Your task to perform on an android device: Open Amazon Image 0: 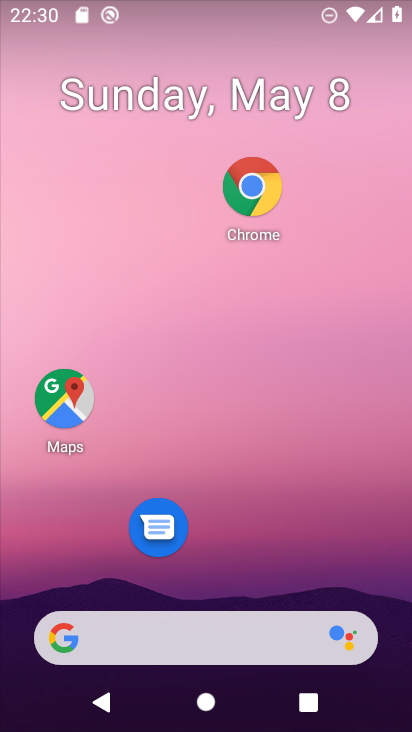
Step 0: drag from (263, 502) to (285, 243)
Your task to perform on an android device: Open Amazon Image 1: 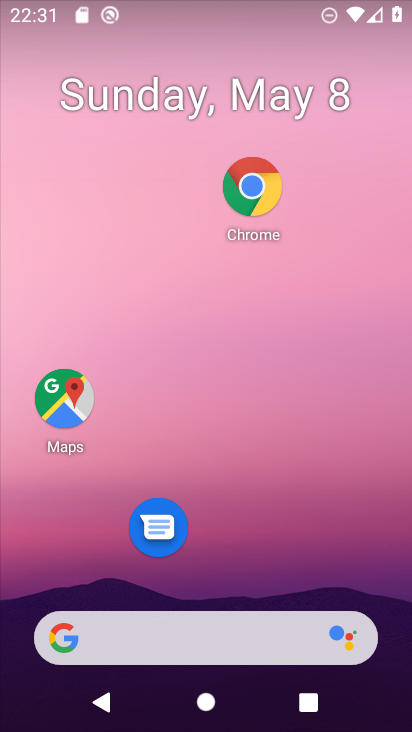
Step 1: click (248, 186)
Your task to perform on an android device: Open Amazon Image 2: 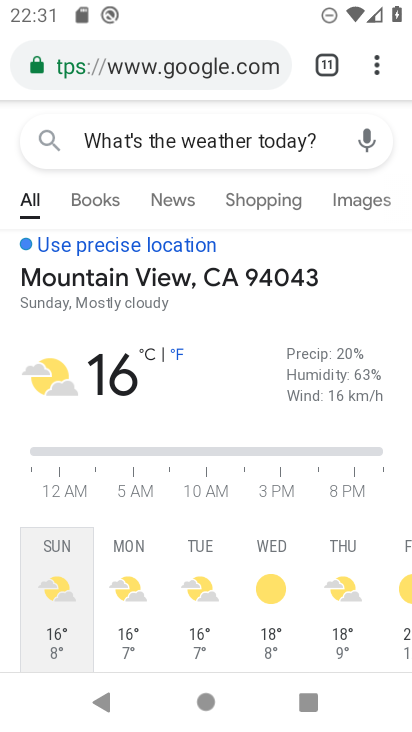
Step 2: click (364, 57)
Your task to perform on an android device: Open Amazon Image 3: 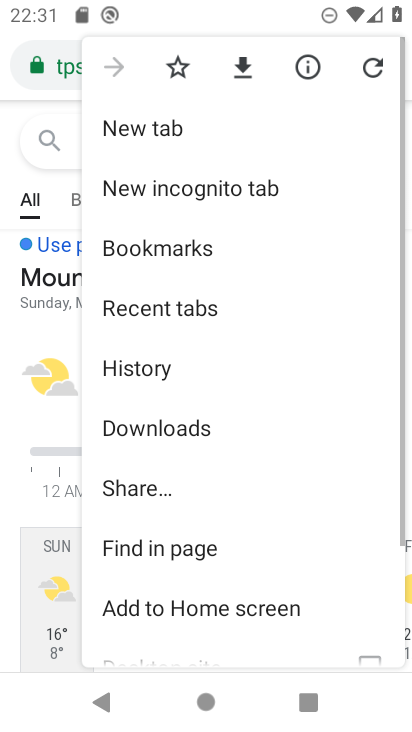
Step 3: click (155, 127)
Your task to perform on an android device: Open Amazon Image 4: 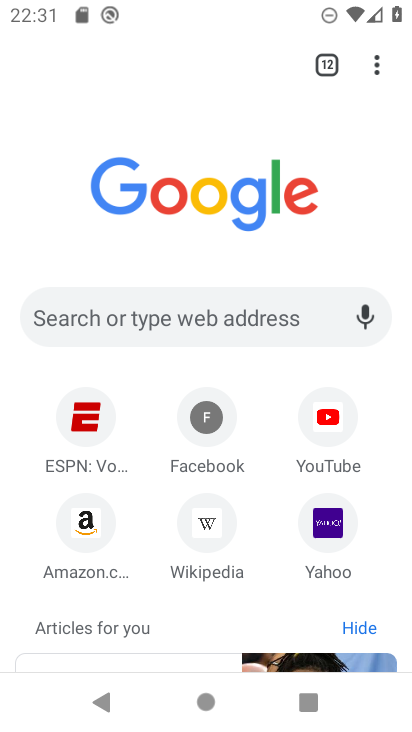
Step 4: click (92, 520)
Your task to perform on an android device: Open Amazon Image 5: 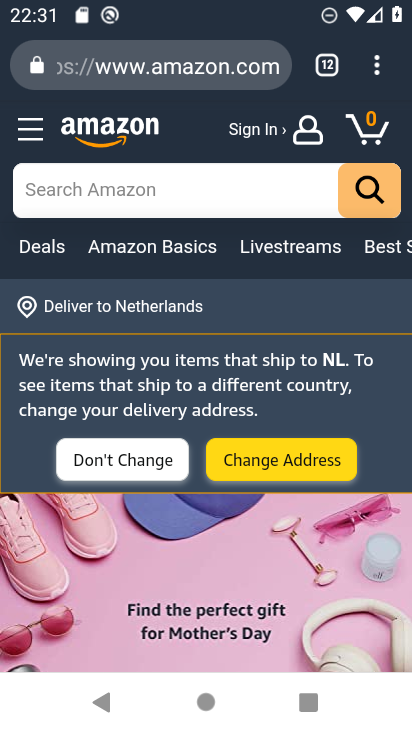
Step 5: task complete